Your task to perform on an android device: install app "Cash App" Image 0: 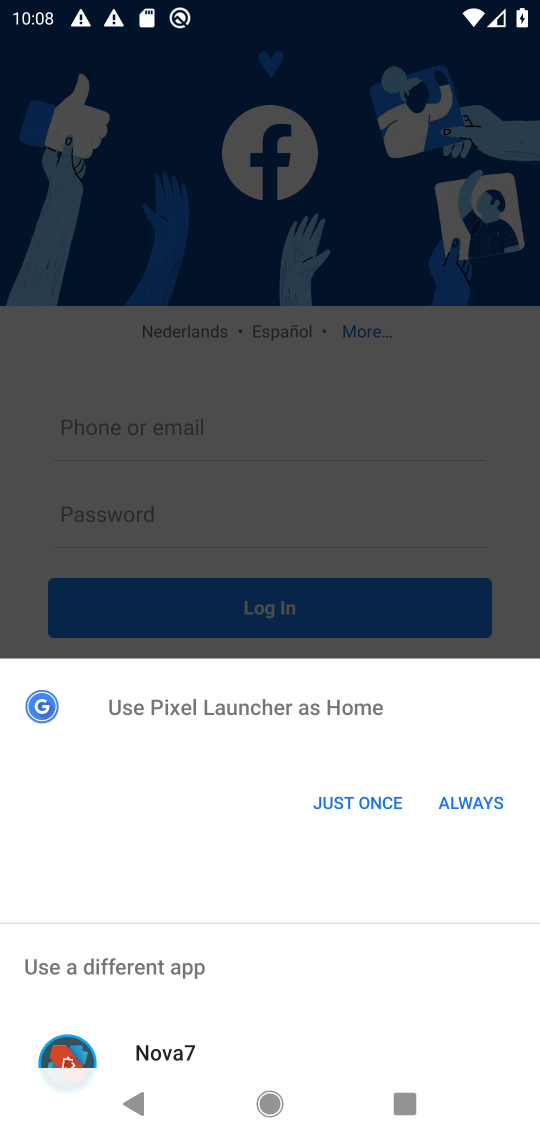
Step 0: click (346, 791)
Your task to perform on an android device: install app "Cash App" Image 1: 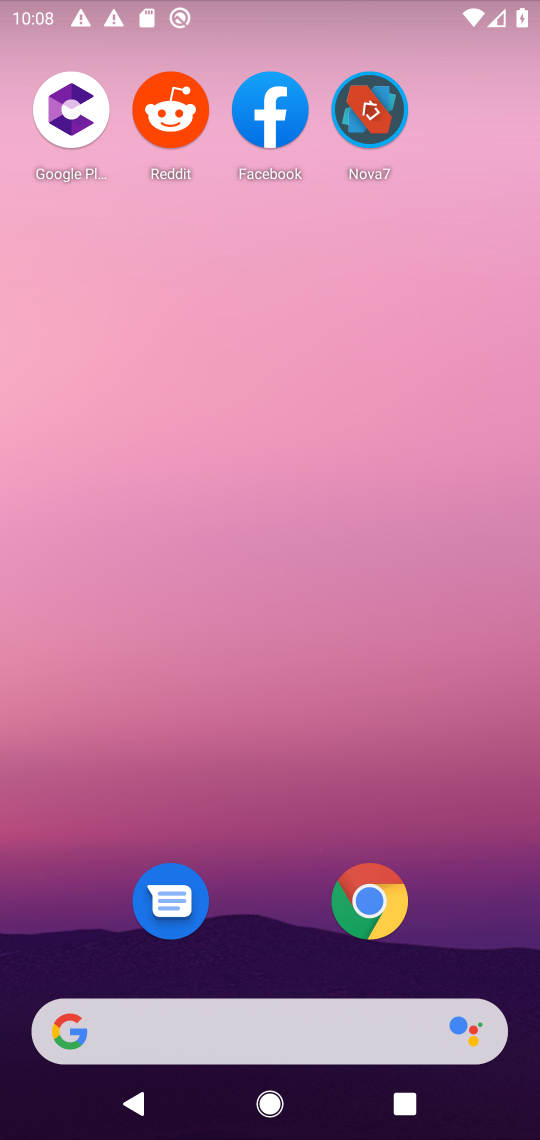
Step 1: drag from (289, 968) to (387, 4)
Your task to perform on an android device: install app "Cash App" Image 2: 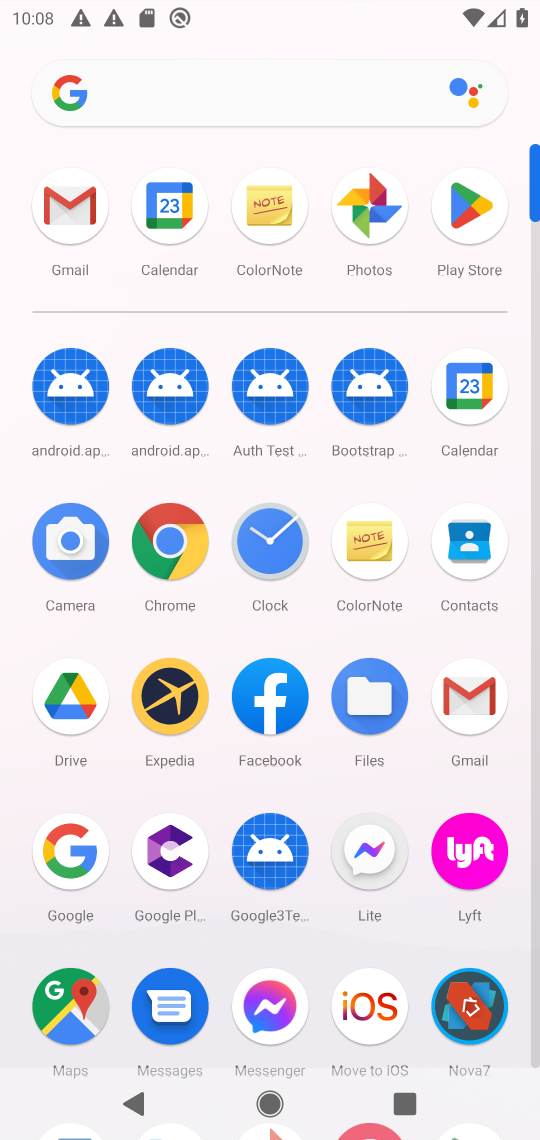
Step 2: click (466, 197)
Your task to perform on an android device: install app "Cash App" Image 3: 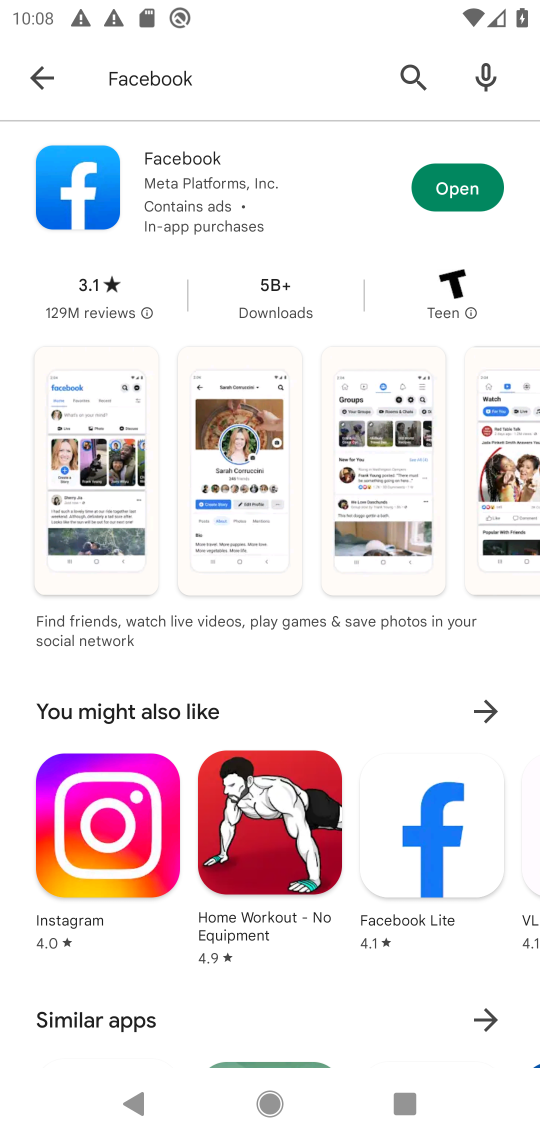
Step 3: press back button
Your task to perform on an android device: install app "Cash App" Image 4: 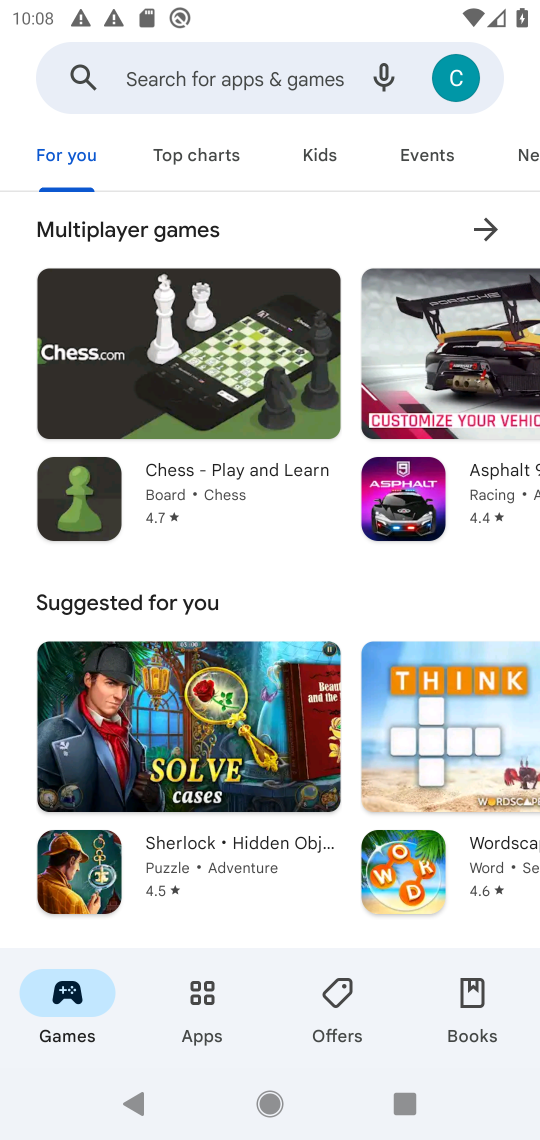
Step 4: click (258, 81)
Your task to perform on an android device: install app "Cash App" Image 5: 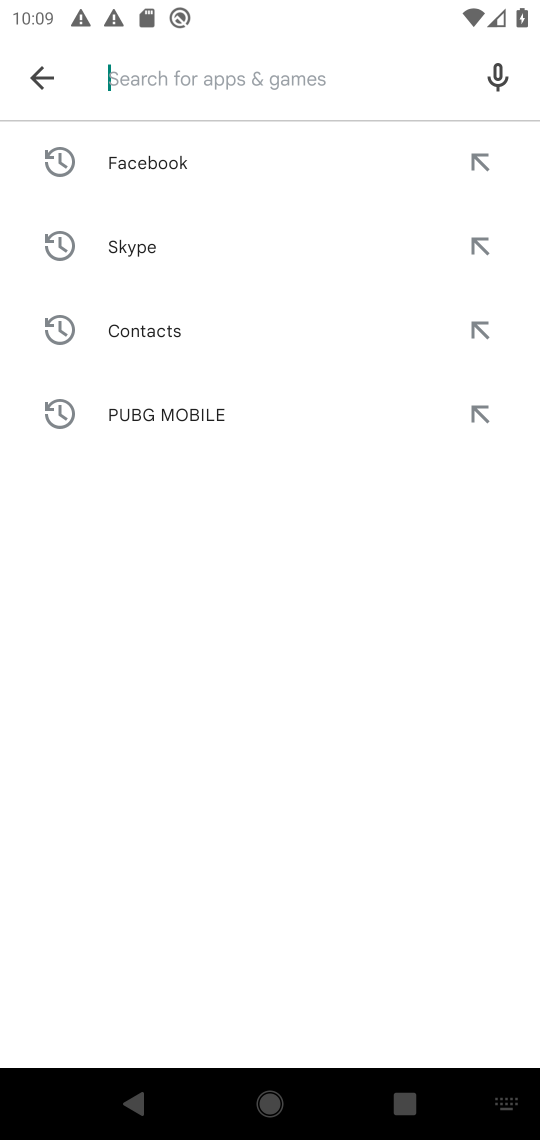
Step 5: type "Cash App"
Your task to perform on an android device: install app "Cash App" Image 6: 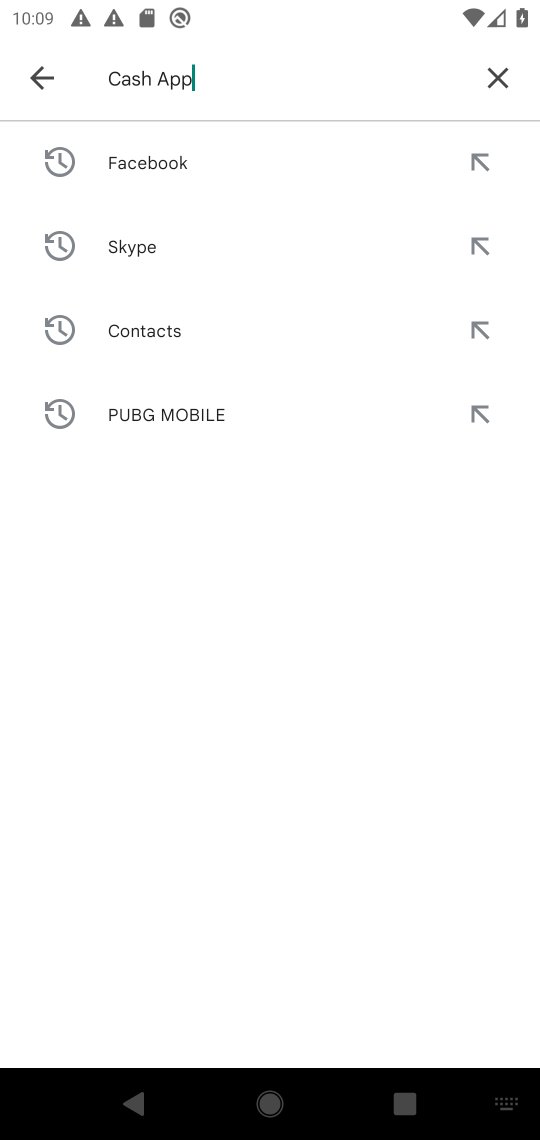
Step 6: press enter
Your task to perform on an android device: install app "Cash App" Image 7: 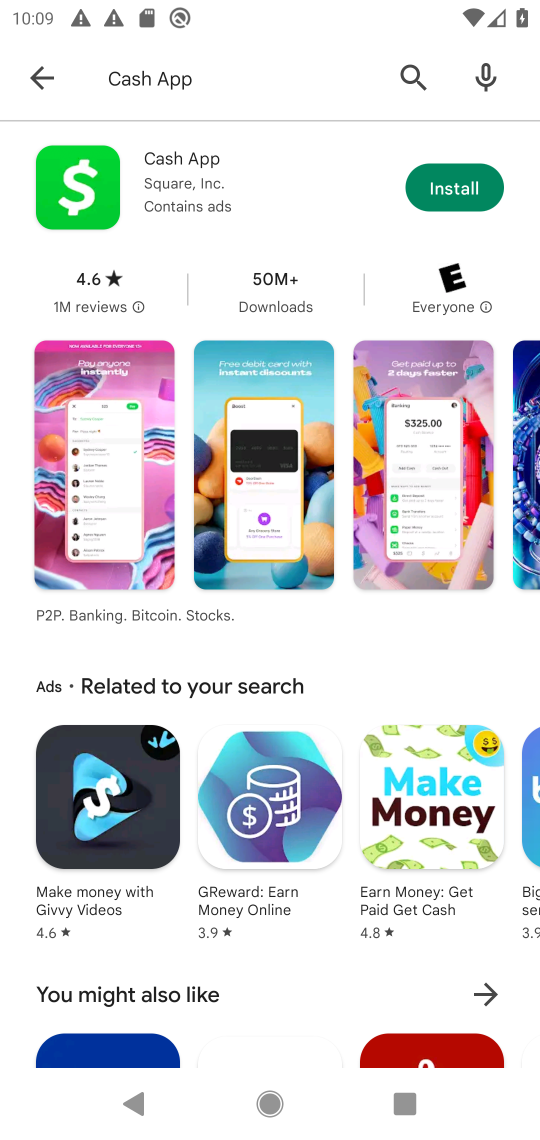
Step 7: click (473, 179)
Your task to perform on an android device: install app "Cash App" Image 8: 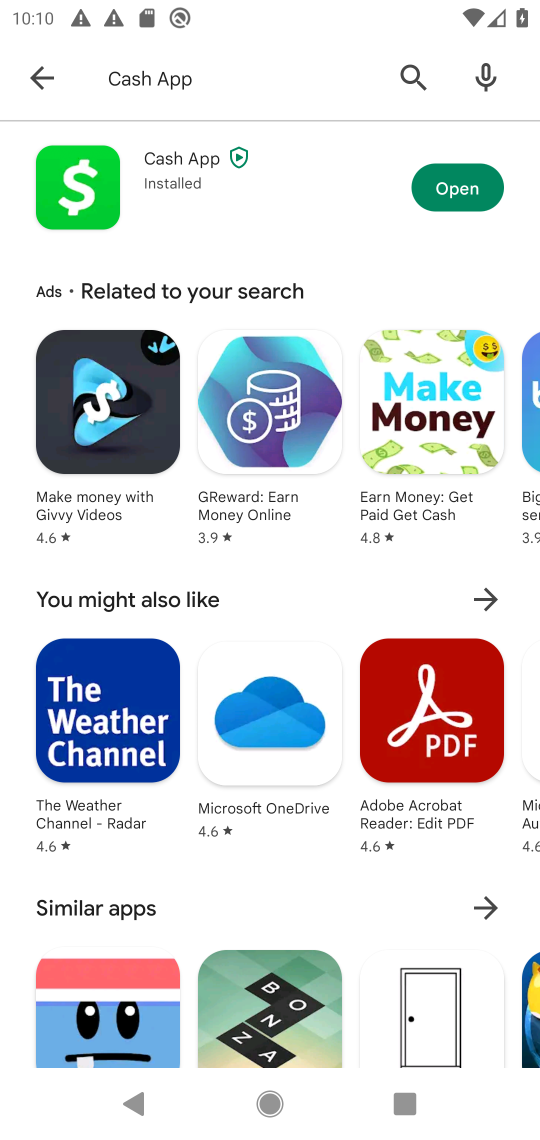
Step 8: click (464, 167)
Your task to perform on an android device: install app "Cash App" Image 9: 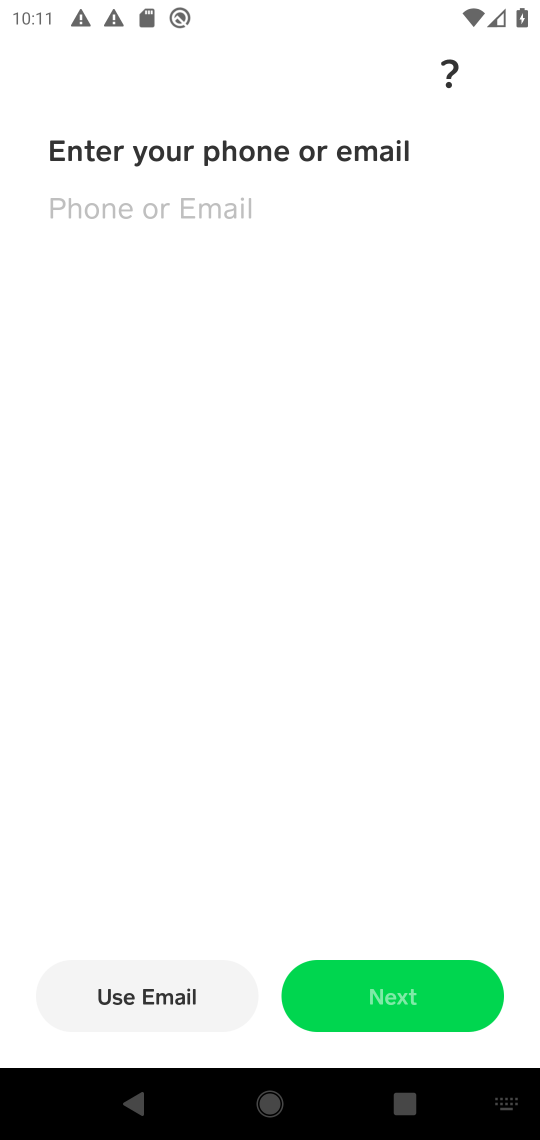
Step 9: task complete